Your task to perform on an android device: install app "Google Chrome" Image 0: 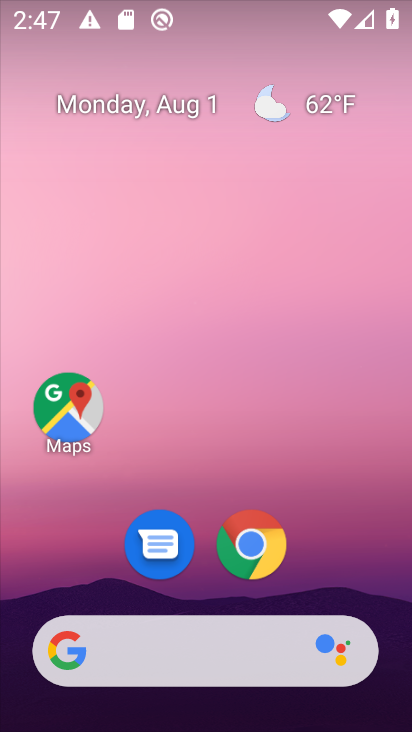
Step 0: drag from (389, 544) to (195, 55)
Your task to perform on an android device: install app "Google Chrome" Image 1: 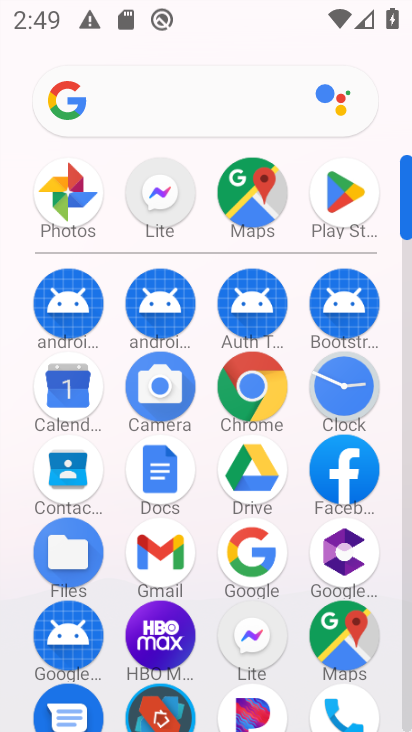
Step 1: click (356, 197)
Your task to perform on an android device: install app "Google Chrome" Image 2: 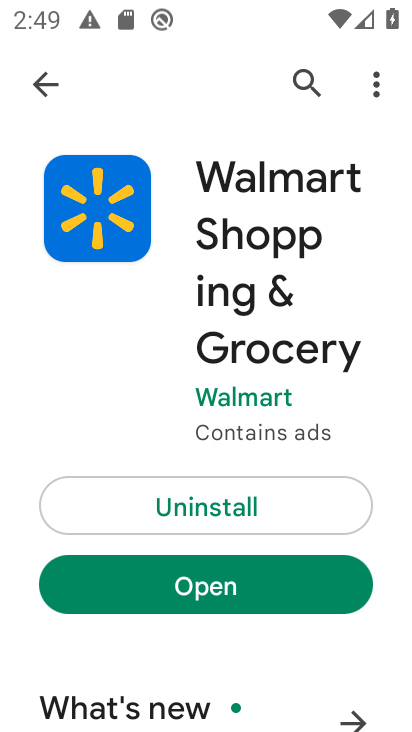
Step 2: press back button
Your task to perform on an android device: install app "Google Chrome" Image 3: 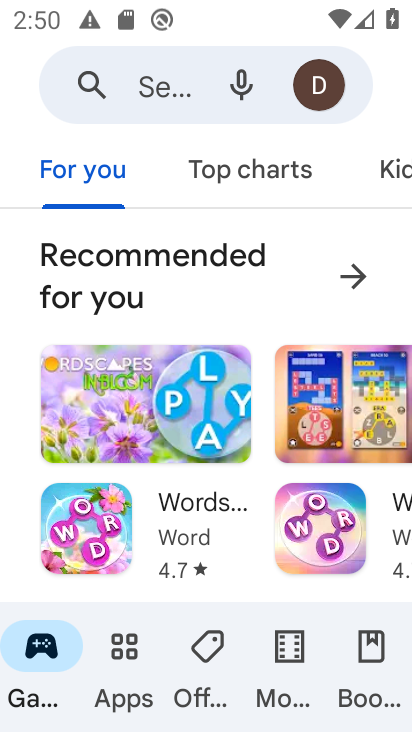
Step 3: click (150, 94)
Your task to perform on an android device: install app "Google Chrome" Image 4: 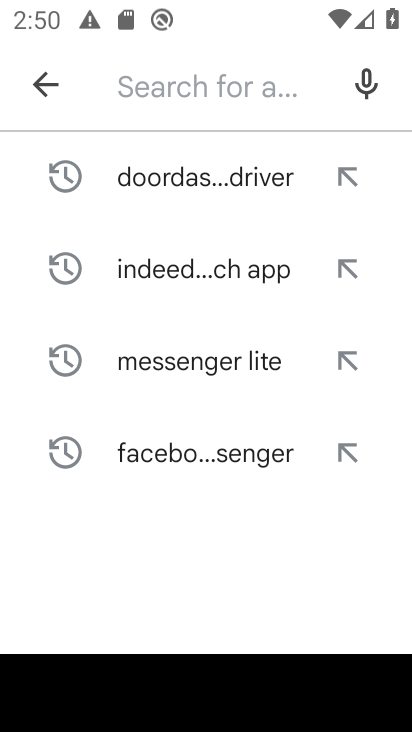
Step 4: type "Google Chrome"
Your task to perform on an android device: install app "Google Chrome" Image 5: 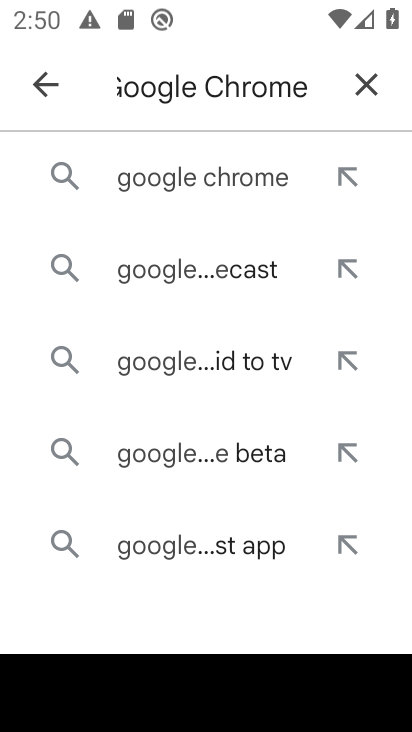
Step 5: click (183, 181)
Your task to perform on an android device: install app "Google Chrome" Image 6: 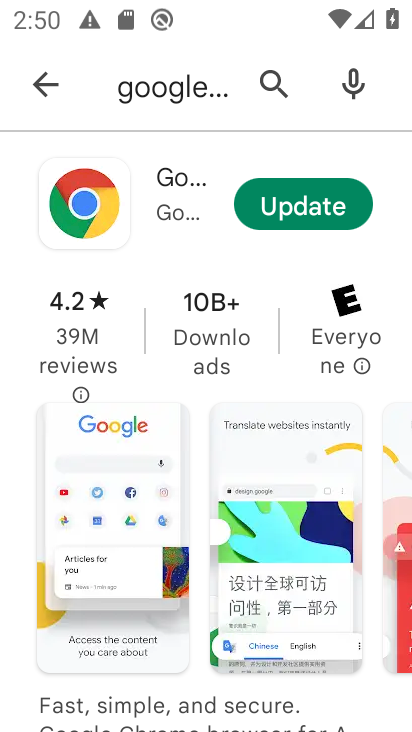
Step 6: click (307, 205)
Your task to perform on an android device: install app "Google Chrome" Image 7: 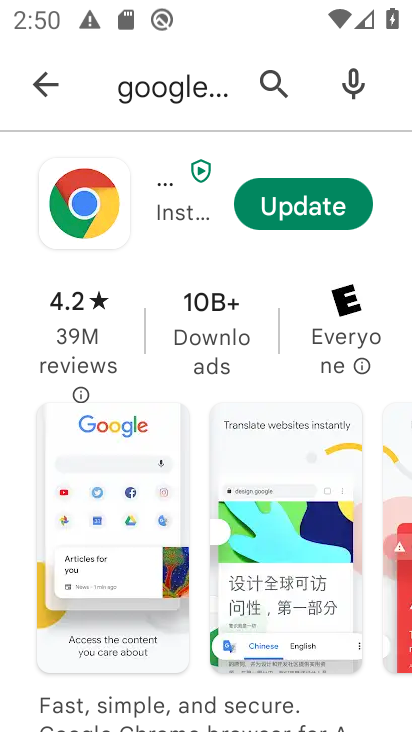
Step 7: click (307, 205)
Your task to perform on an android device: install app "Google Chrome" Image 8: 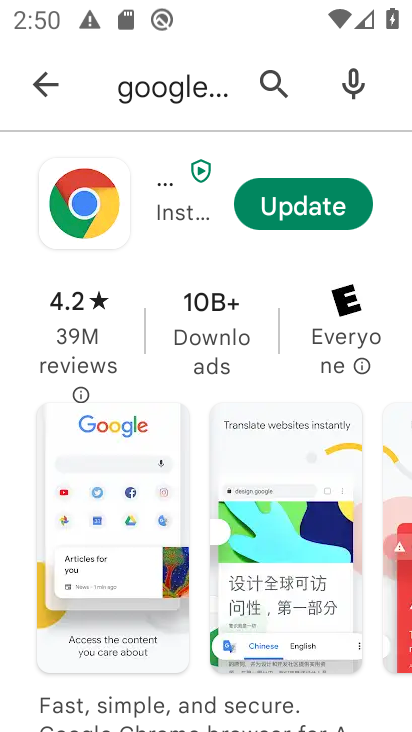
Step 8: task complete